Your task to perform on an android device: snooze an email in the gmail app Image 0: 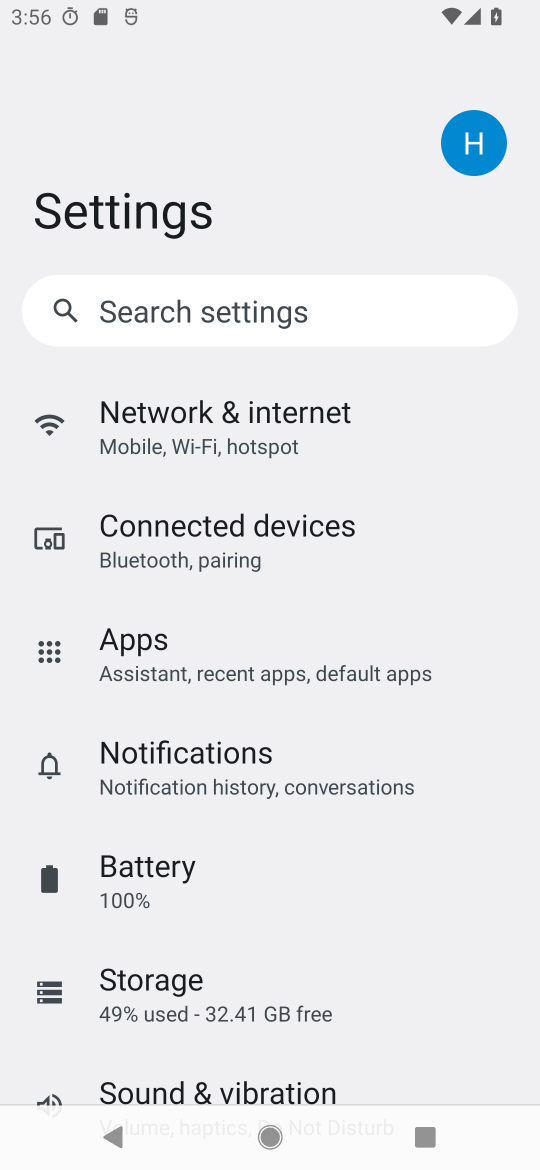
Step 0: press home button
Your task to perform on an android device: snooze an email in the gmail app Image 1: 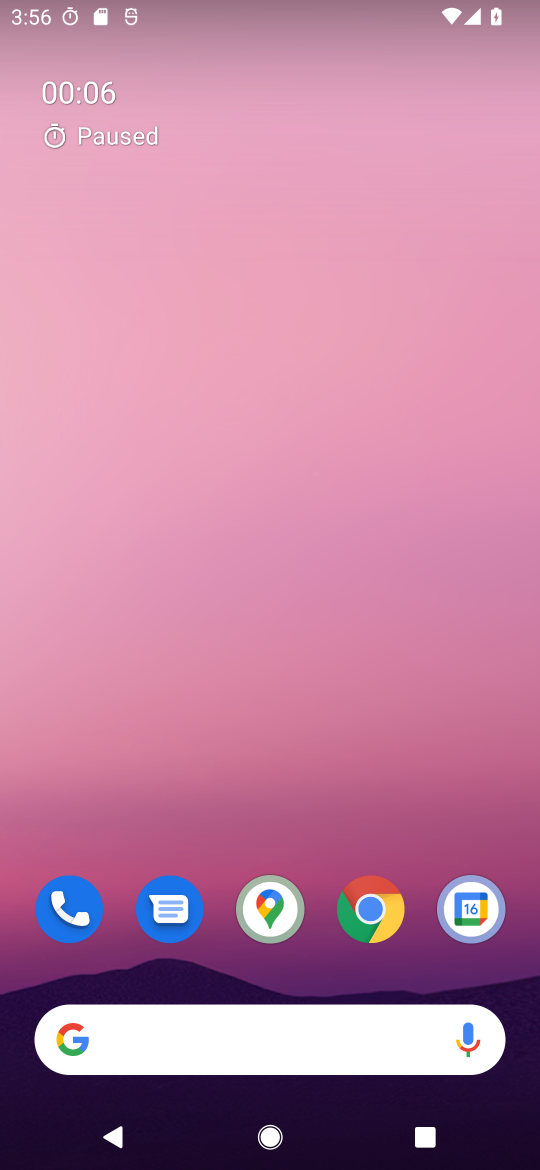
Step 1: drag from (186, 608) to (302, 522)
Your task to perform on an android device: snooze an email in the gmail app Image 2: 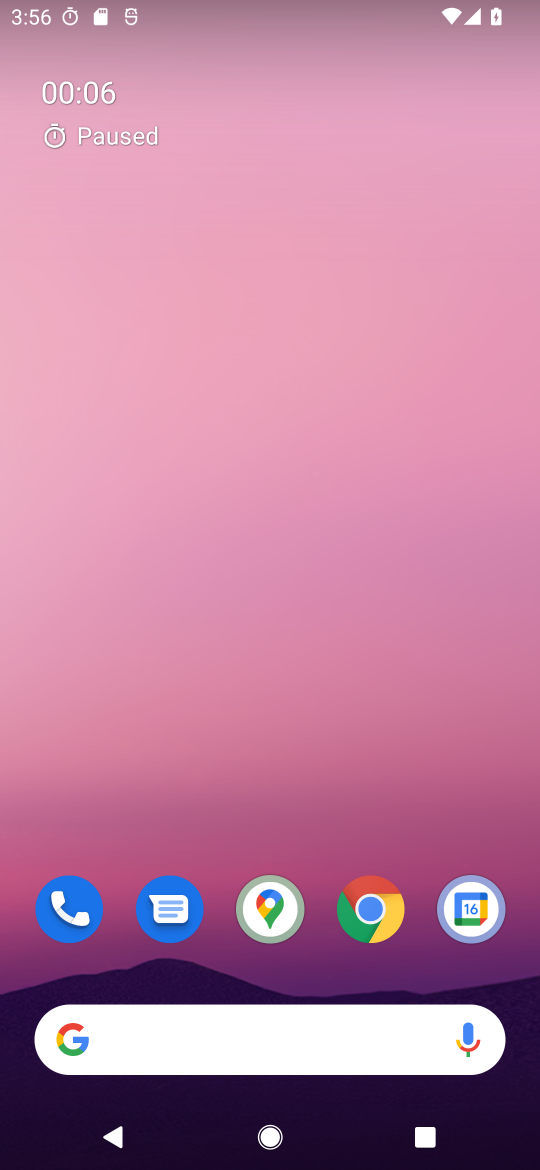
Step 2: drag from (227, 834) to (526, 99)
Your task to perform on an android device: snooze an email in the gmail app Image 3: 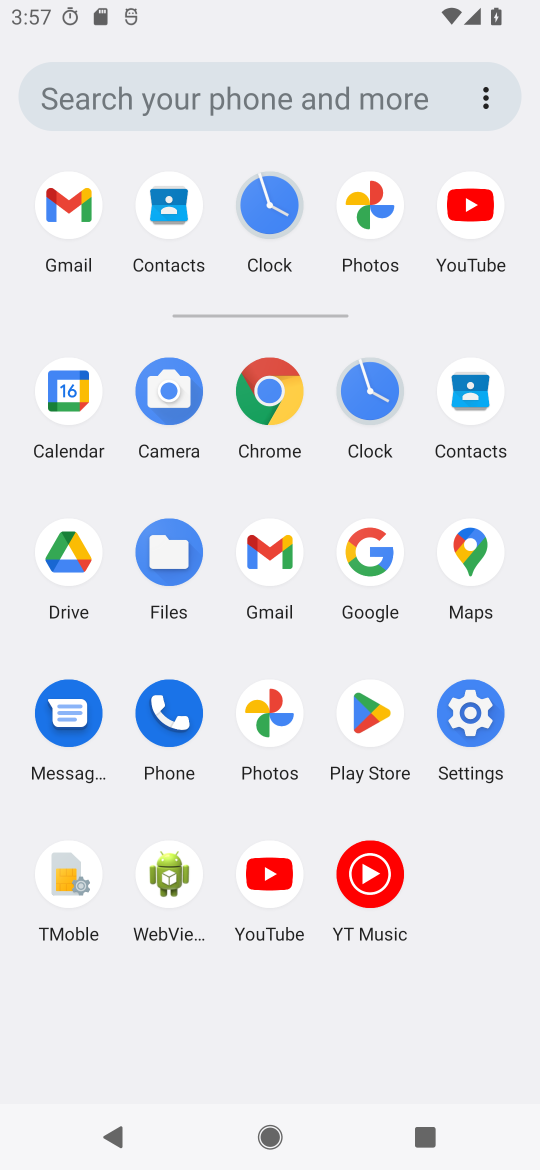
Step 3: click (461, 198)
Your task to perform on an android device: snooze an email in the gmail app Image 4: 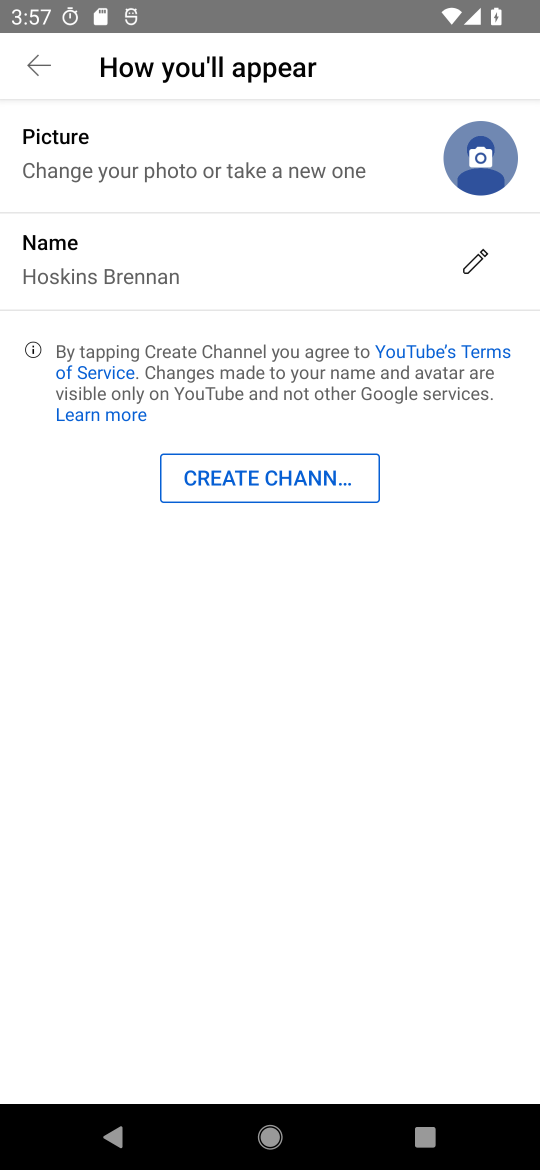
Step 4: click (34, 62)
Your task to perform on an android device: snooze an email in the gmail app Image 5: 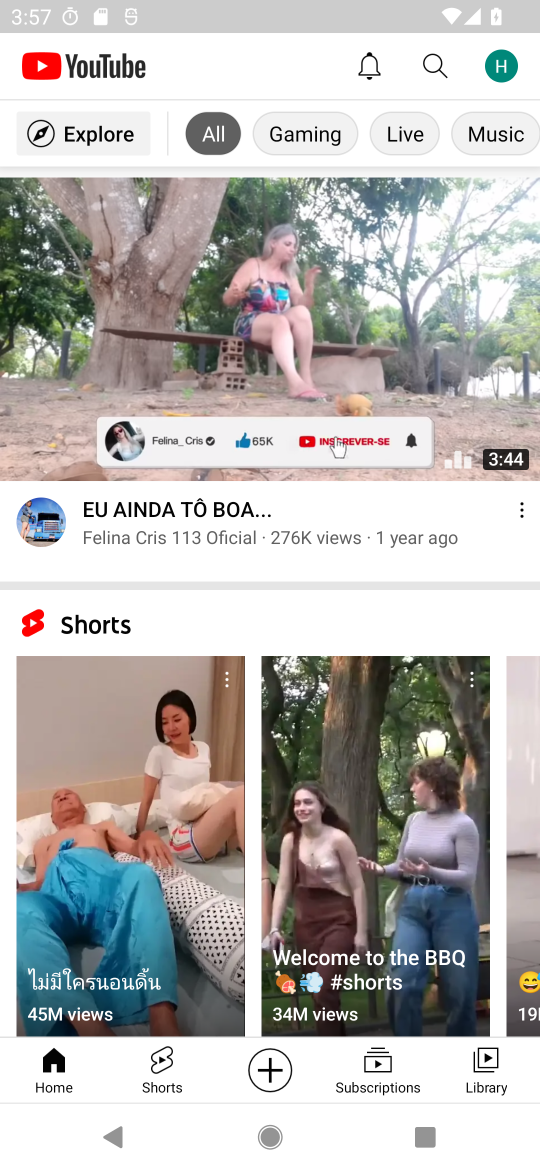
Step 5: press home button
Your task to perform on an android device: snooze an email in the gmail app Image 6: 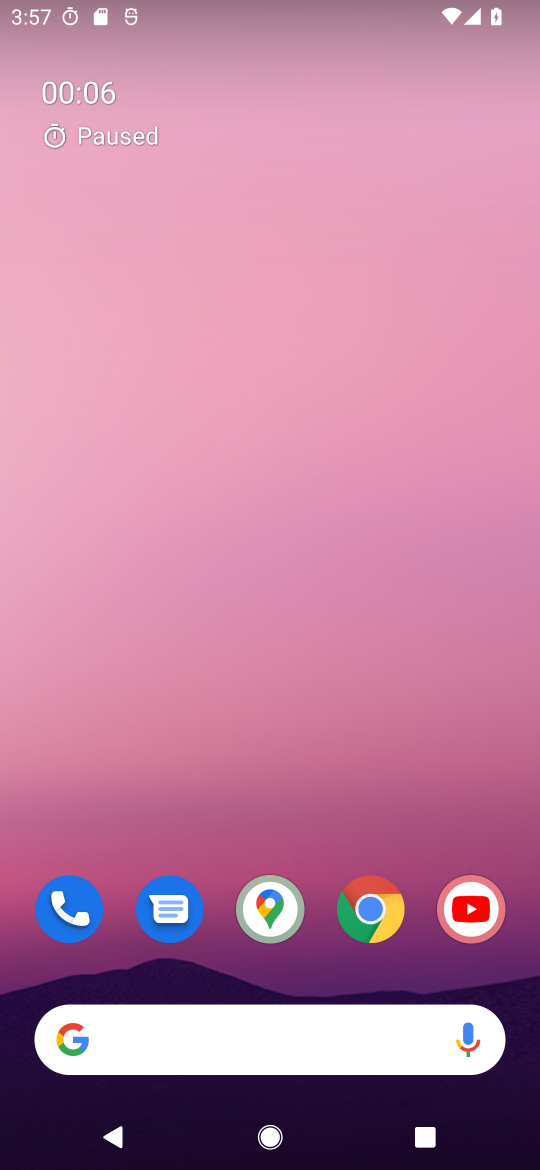
Step 6: drag from (216, 551) to (207, 284)
Your task to perform on an android device: snooze an email in the gmail app Image 7: 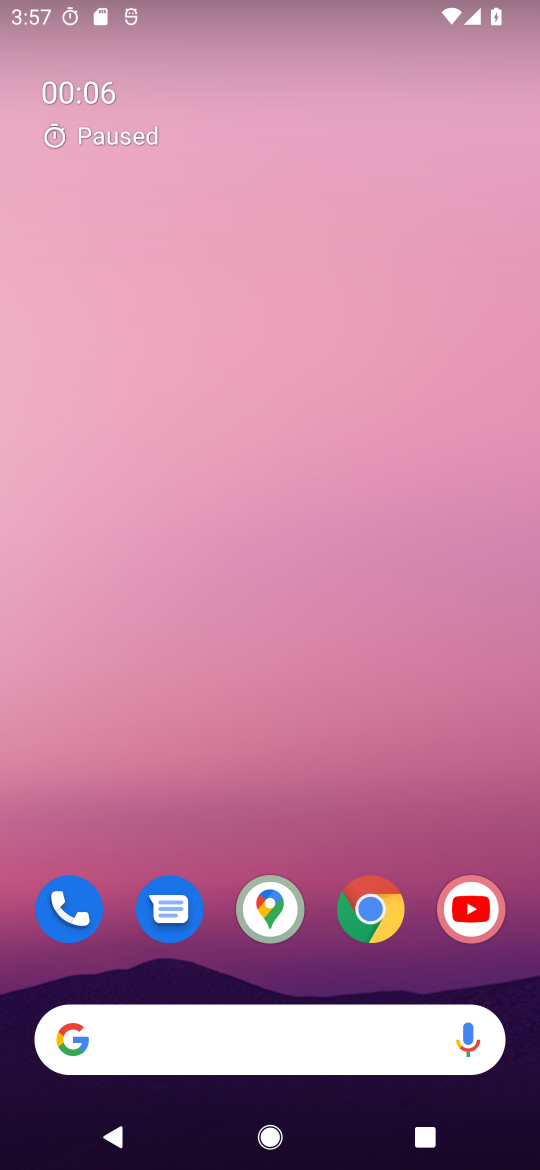
Step 7: drag from (234, 839) to (259, 237)
Your task to perform on an android device: snooze an email in the gmail app Image 8: 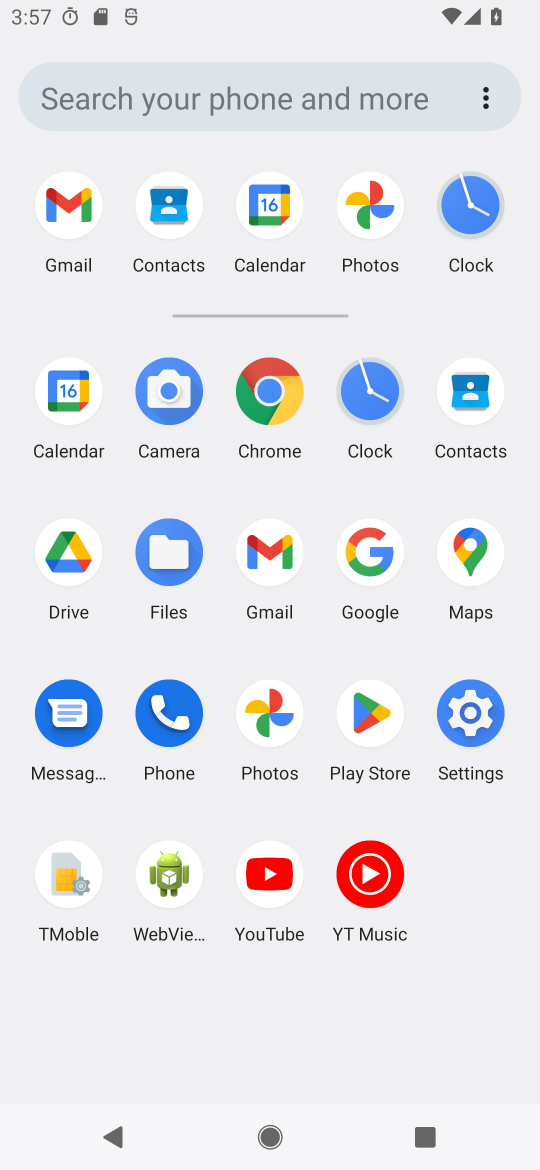
Step 8: click (60, 220)
Your task to perform on an android device: snooze an email in the gmail app Image 9: 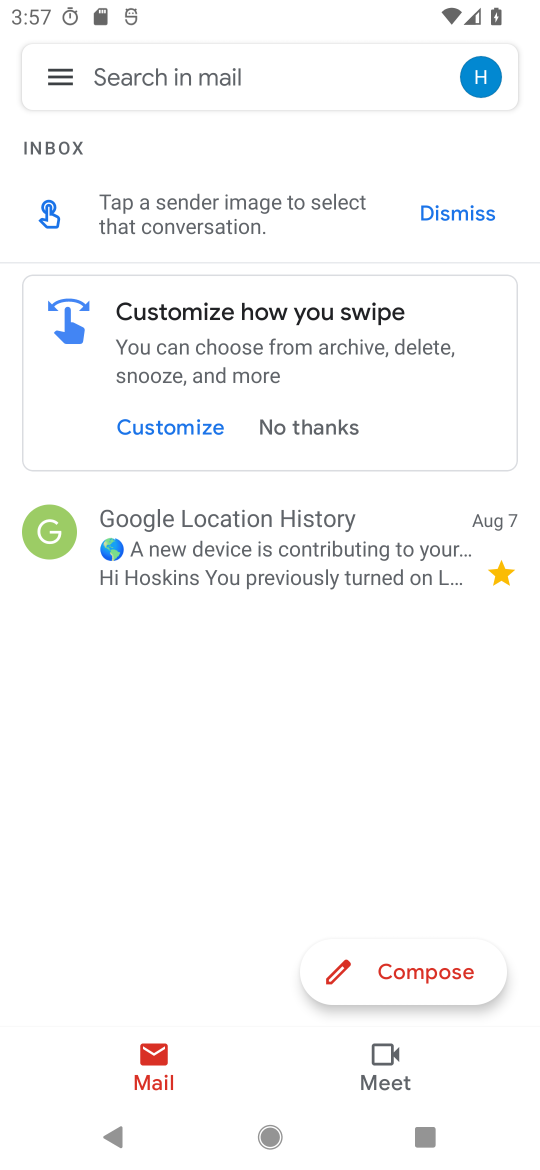
Step 9: click (250, 525)
Your task to perform on an android device: snooze an email in the gmail app Image 10: 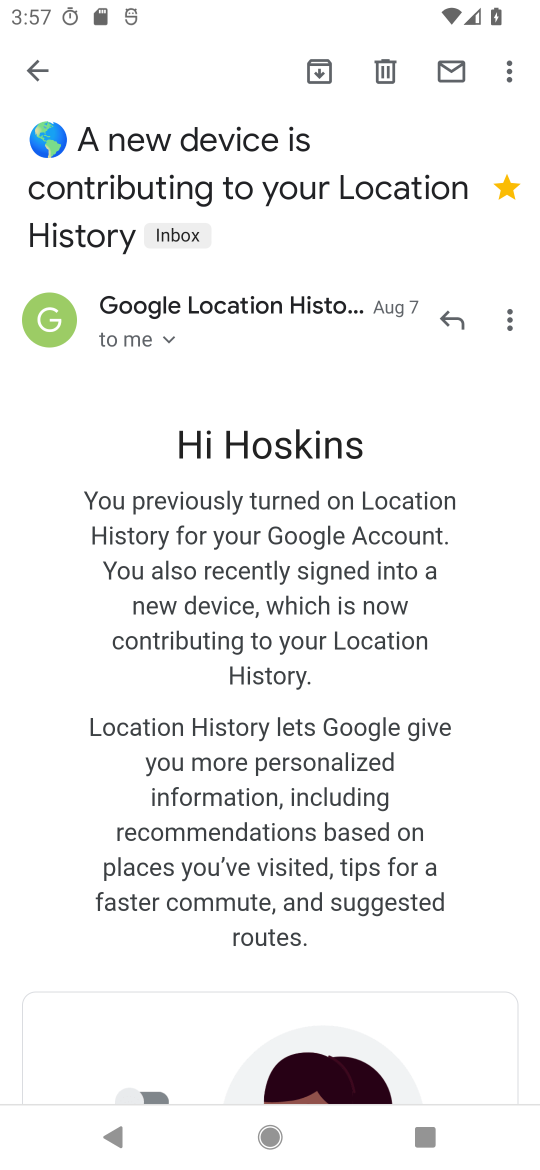
Step 10: click (502, 78)
Your task to perform on an android device: snooze an email in the gmail app Image 11: 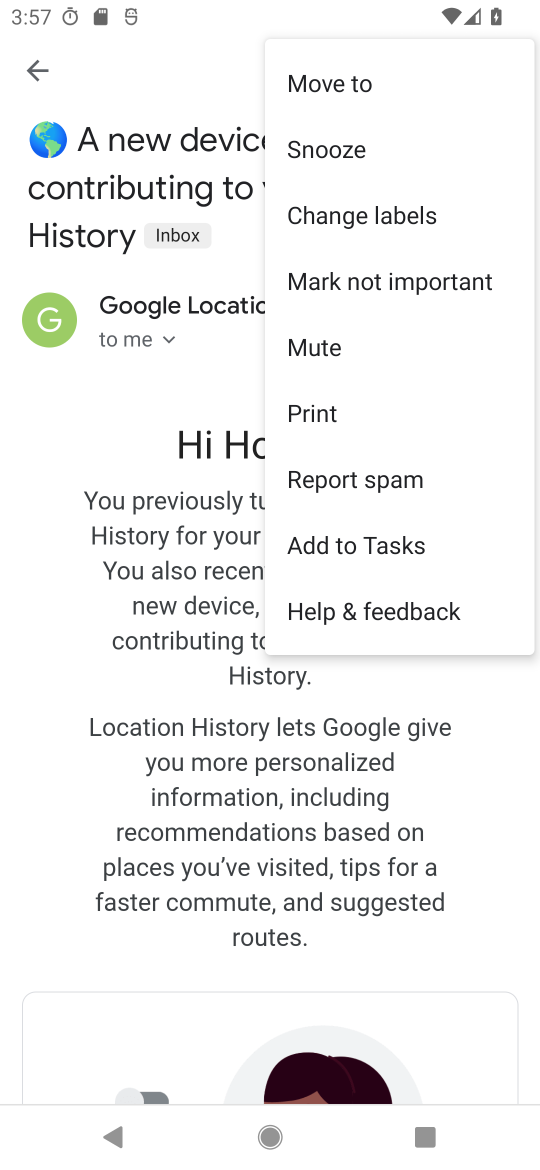
Step 11: click (368, 158)
Your task to perform on an android device: snooze an email in the gmail app Image 12: 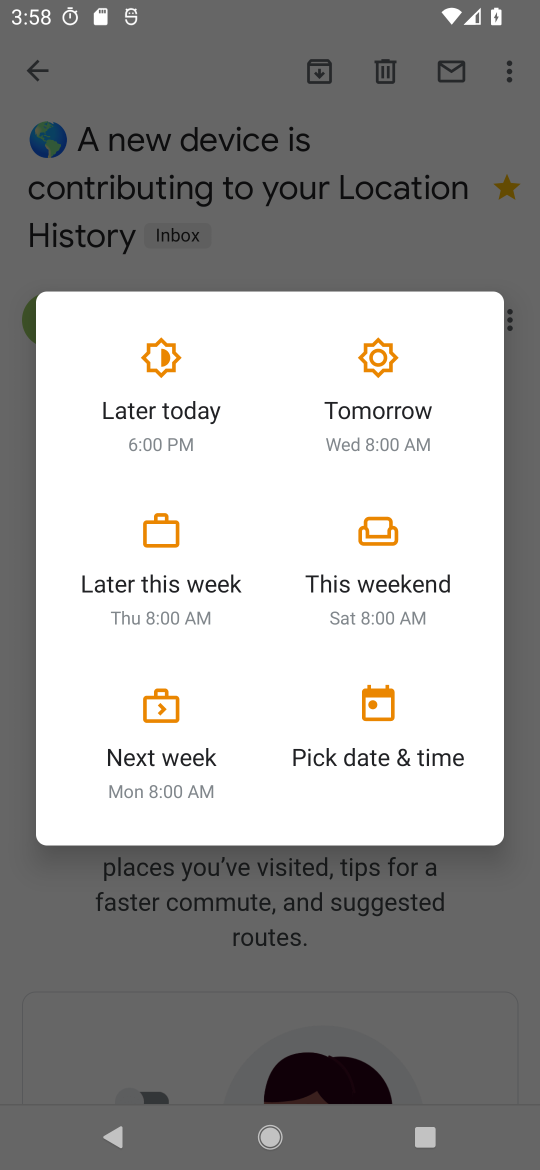
Step 12: click (170, 379)
Your task to perform on an android device: snooze an email in the gmail app Image 13: 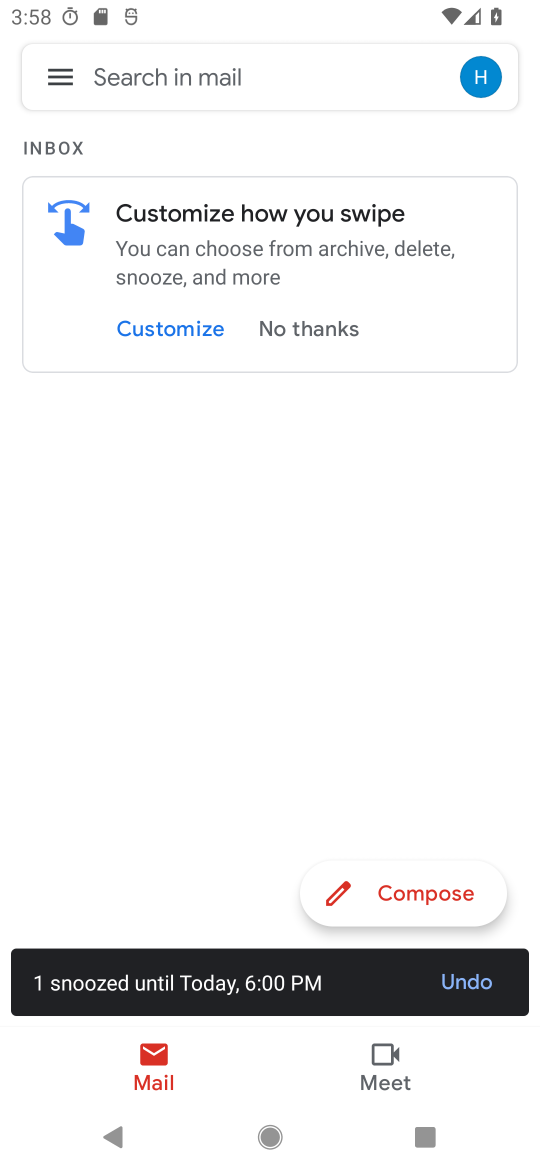
Step 13: task complete